Your task to perform on an android device: Open location settings Image 0: 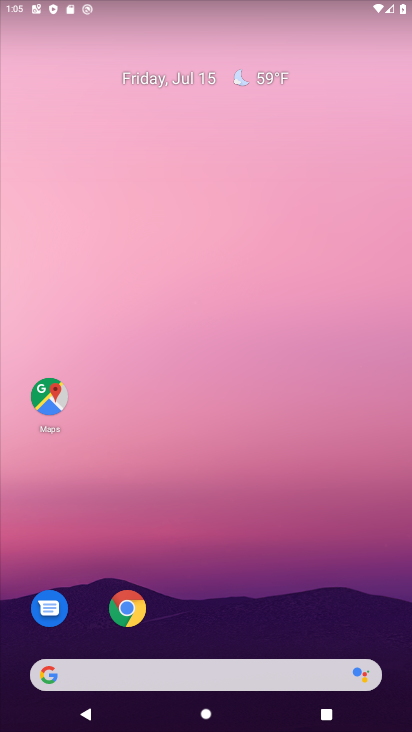
Step 0: drag from (297, 622) to (251, 271)
Your task to perform on an android device: Open location settings Image 1: 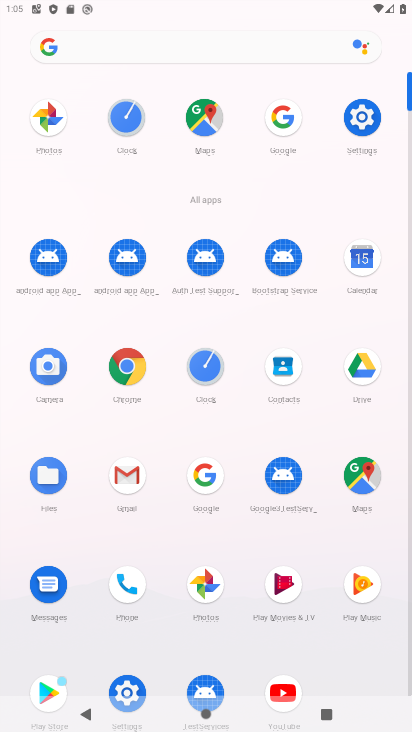
Step 1: click (135, 688)
Your task to perform on an android device: Open location settings Image 2: 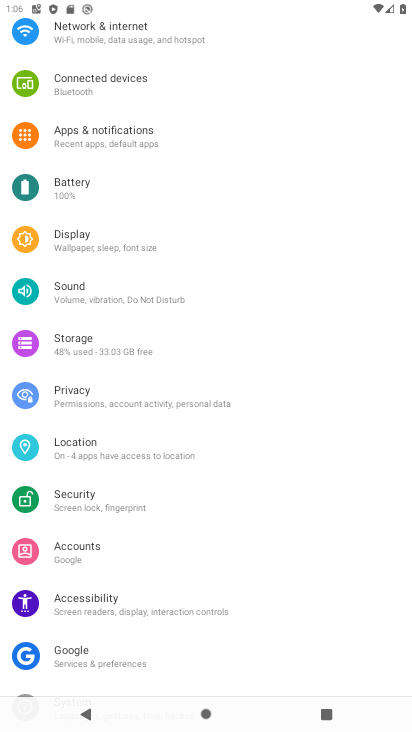
Step 2: click (93, 458)
Your task to perform on an android device: Open location settings Image 3: 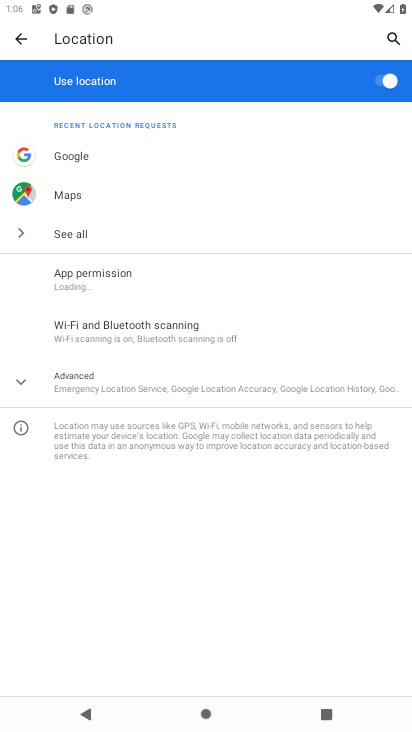
Step 3: click (74, 369)
Your task to perform on an android device: Open location settings Image 4: 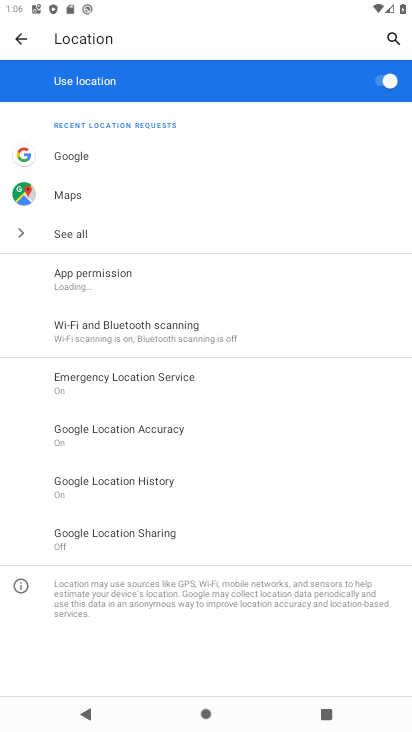
Step 4: task complete